Your task to perform on an android device: check out phone information Image 0: 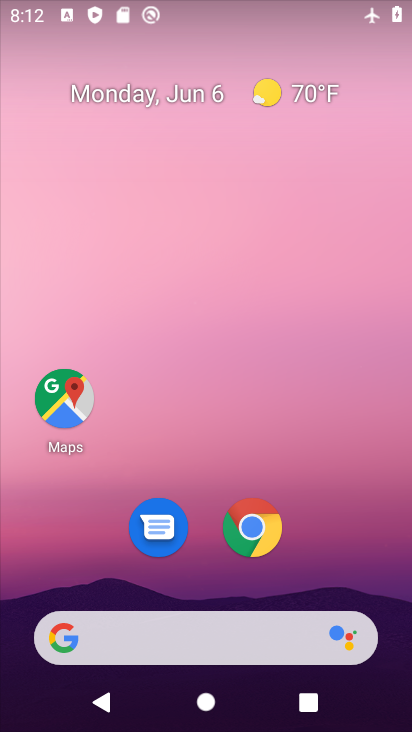
Step 0: drag from (201, 580) to (199, 224)
Your task to perform on an android device: check out phone information Image 1: 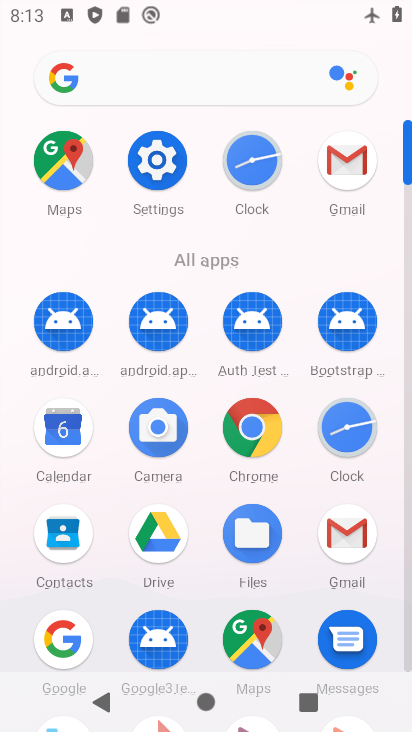
Step 1: click (151, 173)
Your task to perform on an android device: check out phone information Image 2: 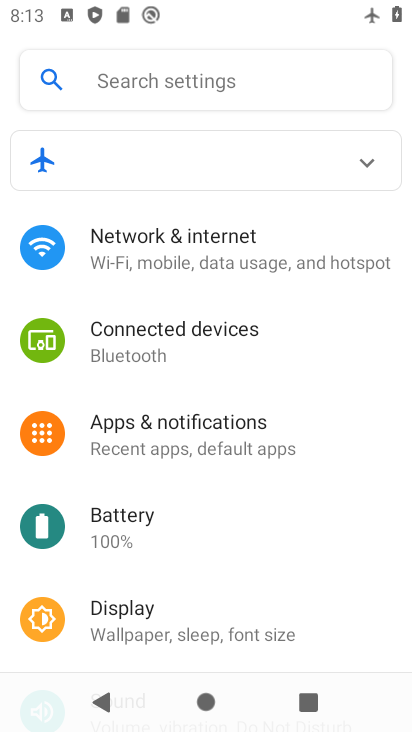
Step 2: drag from (162, 479) to (181, 258)
Your task to perform on an android device: check out phone information Image 3: 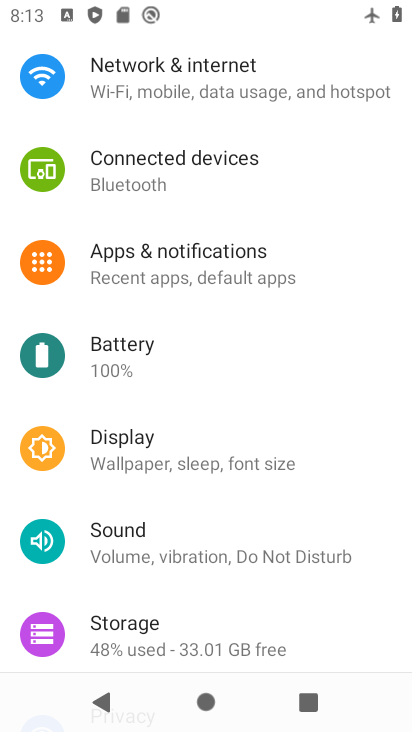
Step 3: drag from (224, 530) to (274, 234)
Your task to perform on an android device: check out phone information Image 4: 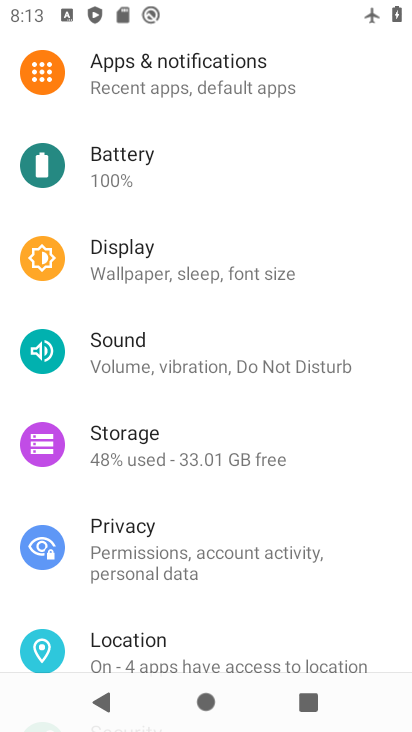
Step 4: drag from (268, 578) to (382, 100)
Your task to perform on an android device: check out phone information Image 5: 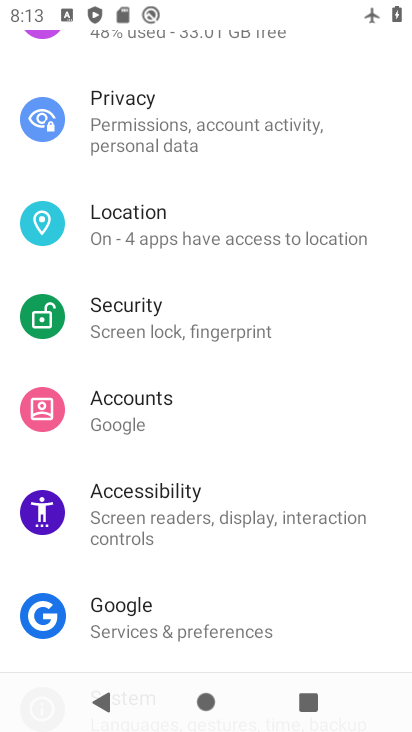
Step 5: drag from (313, 508) to (318, 117)
Your task to perform on an android device: check out phone information Image 6: 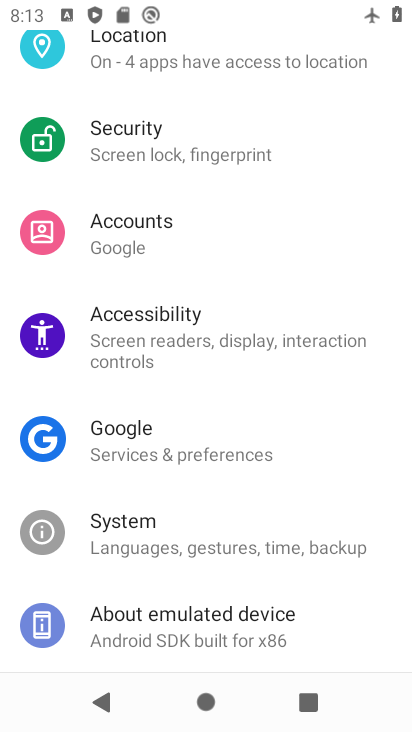
Step 6: drag from (219, 452) to (284, 169)
Your task to perform on an android device: check out phone information Image 7: 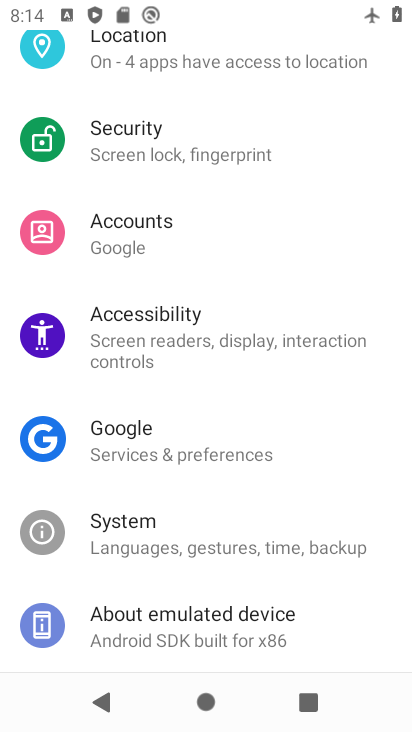
Step 7: click (229, 606)
Your task to perform on an android device: check out phone information Image 8: 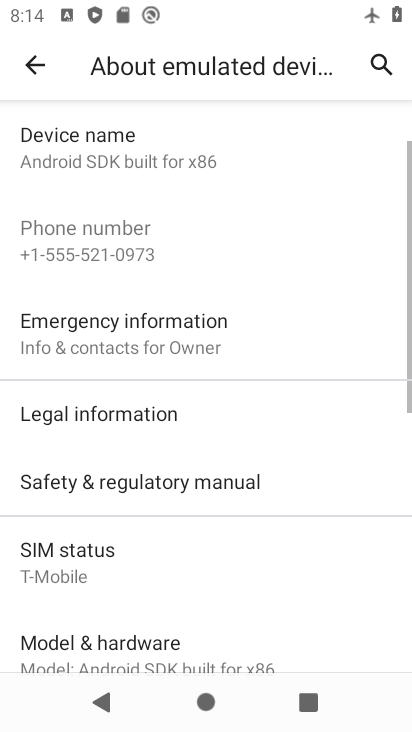
Step 8: task complete